Your task to perform on an android device: open app "PlayWell" Image 0: 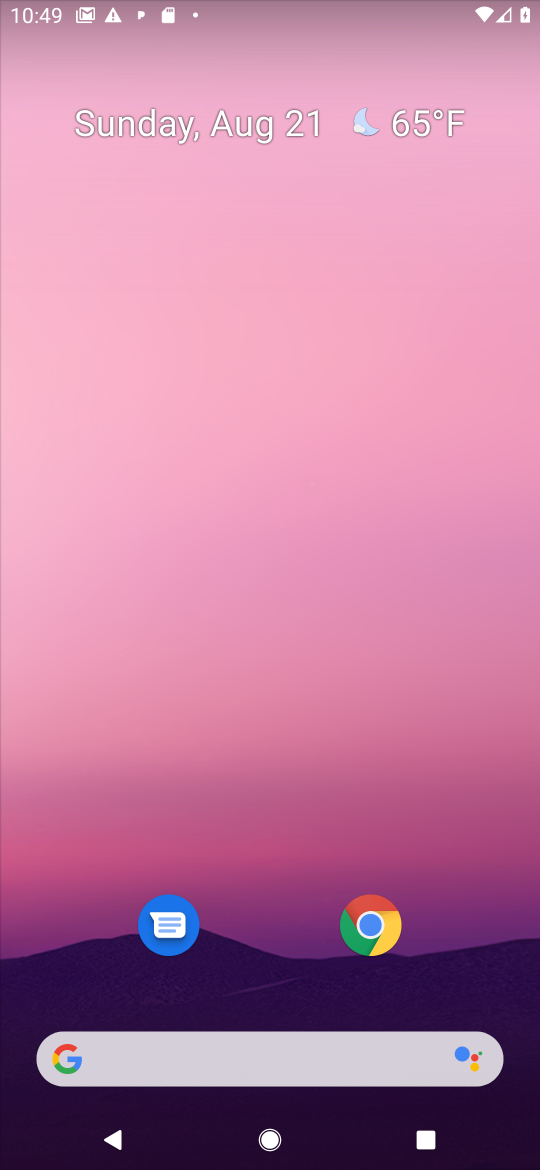
Step 0: drag from (288, 907) to (377, 165)
Your task to perform on an android device: open app "PlayWell" Image 1: 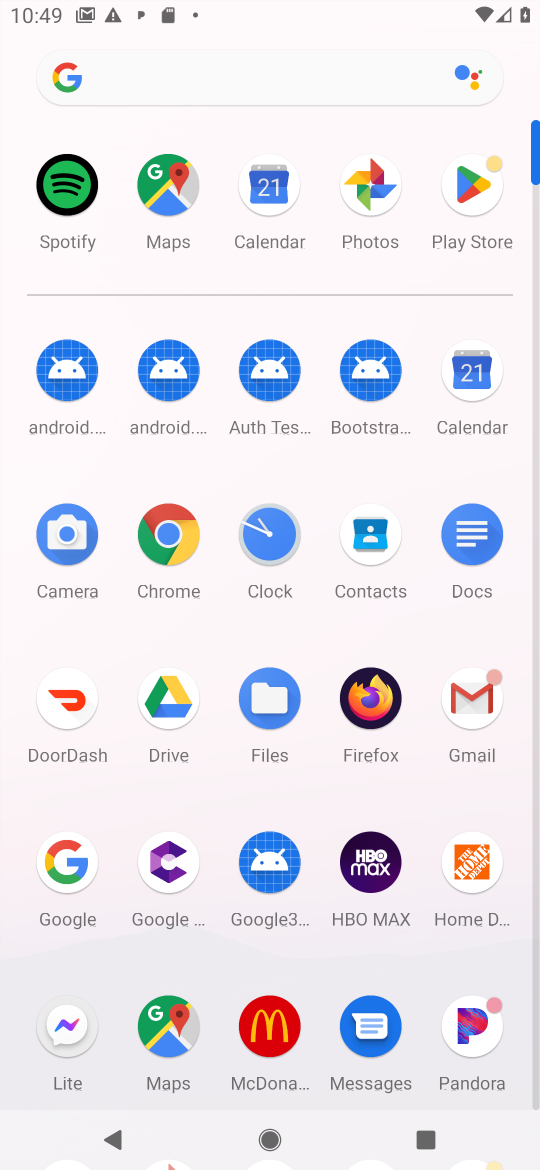
Step 1: click (483, 183)
Your task to perform on an android device: open app "PlayWell" Image 2: 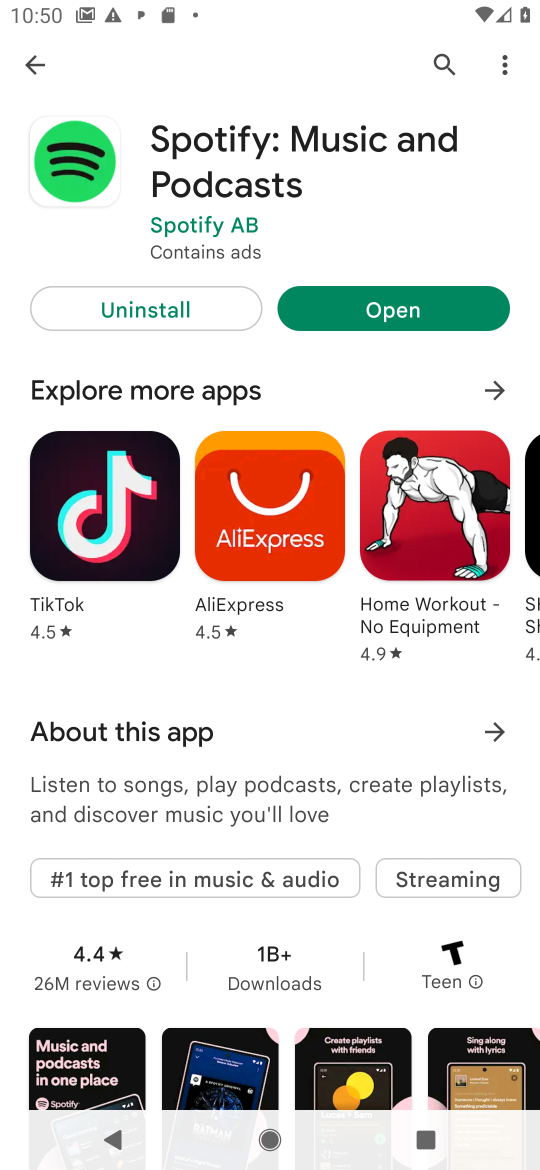
Step 2: click (450, 53)
Your task to perform on an android device: open app "PlayWell" Image 3: 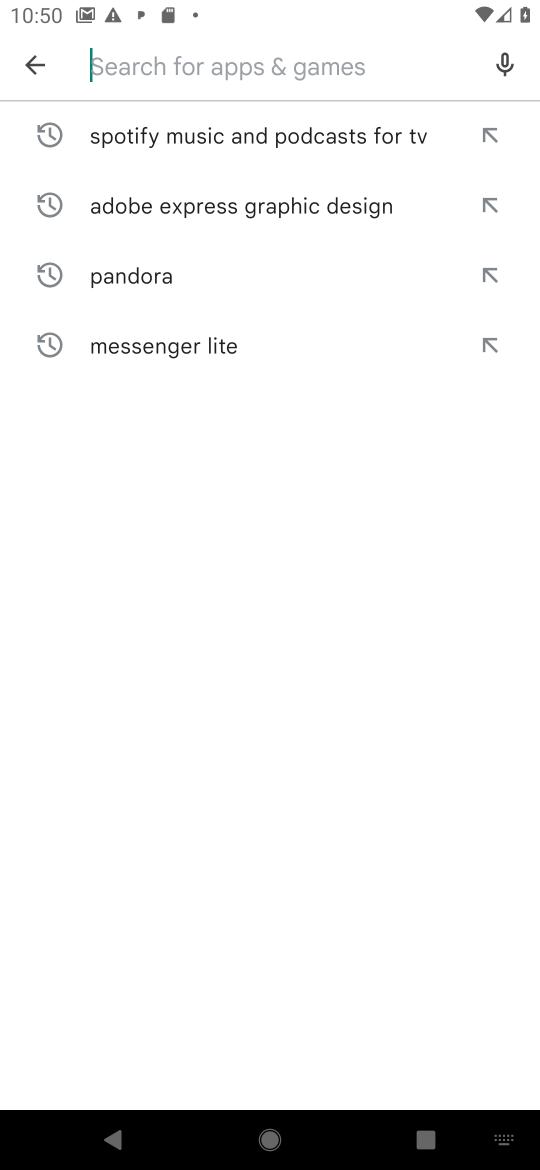
Step 3: click (163, 67)
Your task to perform on an android device: open app "PlayWell" Image 4: 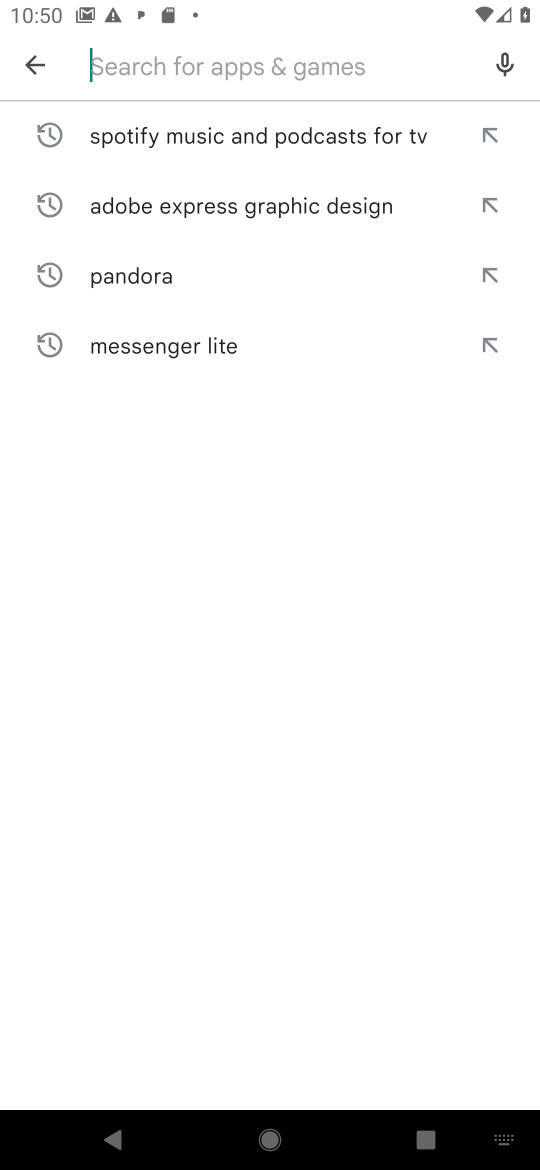
Step 4: type "playwell"
Your task to perform on an android device: open app "PlayWell" Image 5: 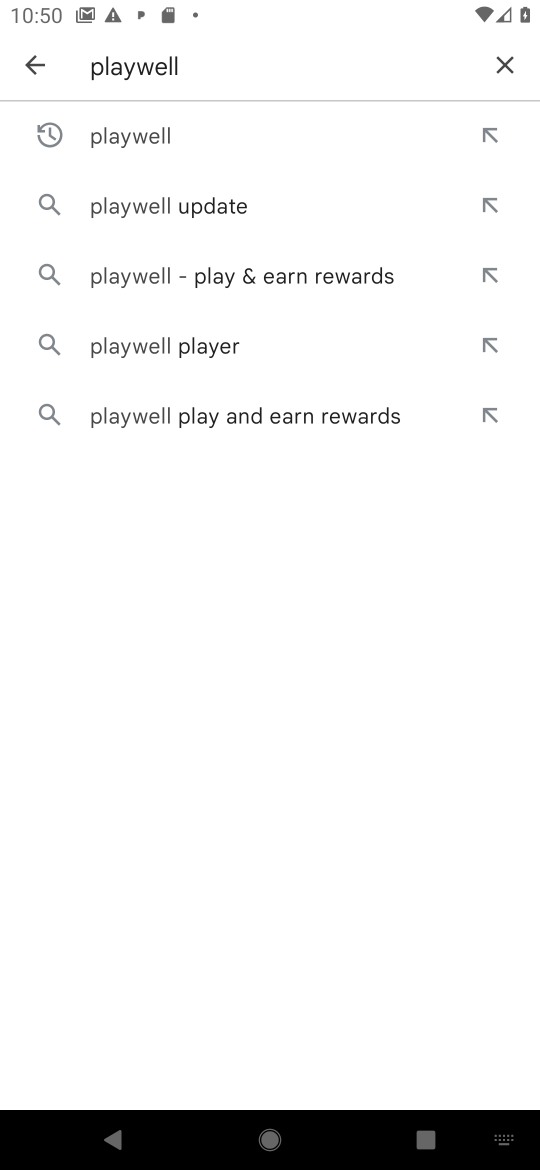
Step 5: click (135, 134)
Your task to perform on an android device: open app "PlayWell" Image 6: 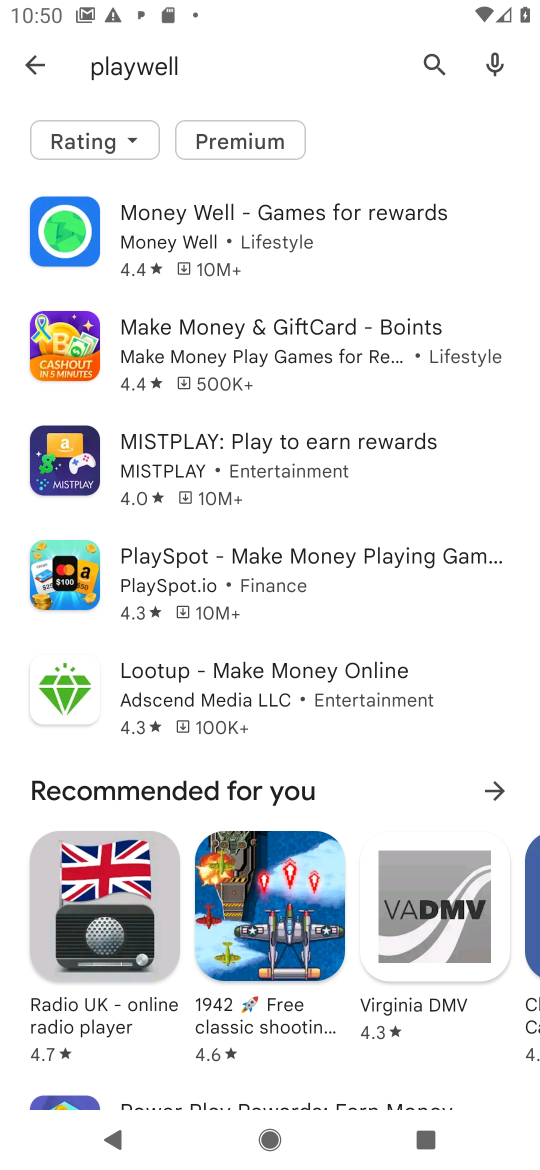
Step 6: task complete